Your task to perform on an android device: Open CNN.com Image 0: 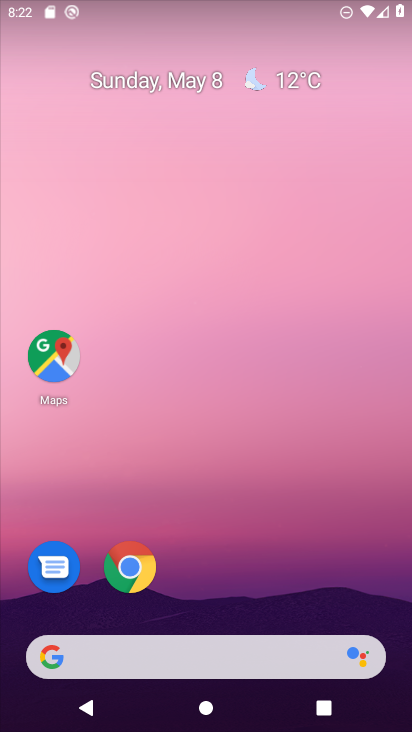
Step 0: drag from (247, 607) to (278, 100)
Your task to perform on an android device: Open CNN.com Image 1: 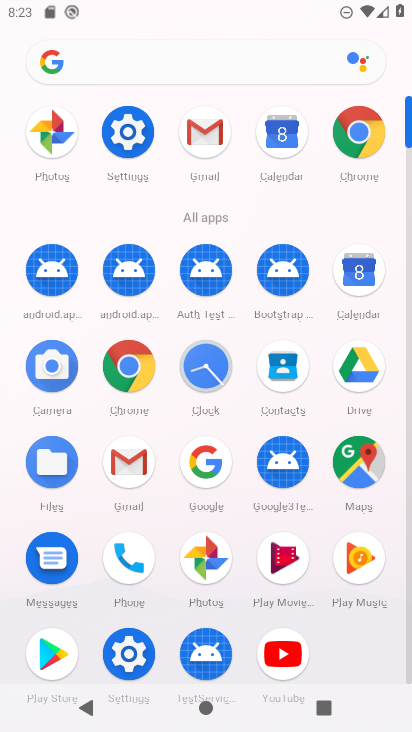
Step 1: click (381, 130)
Your task to perform on an android device: Open CNN.com Image 2: 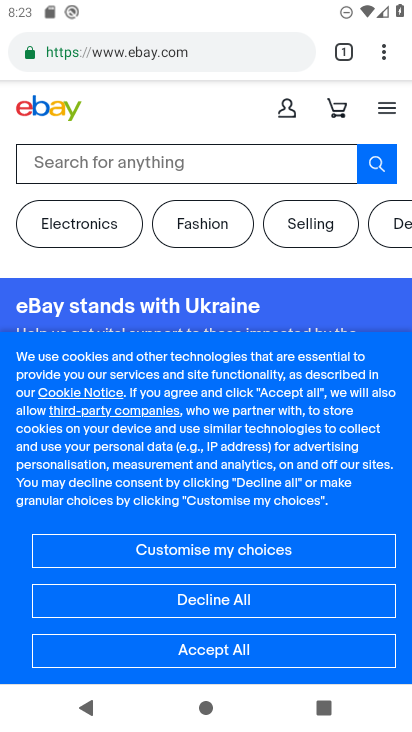
Step 2: click (210, 43)
Your task to perform on an android device: Open CNN.com Image 3: 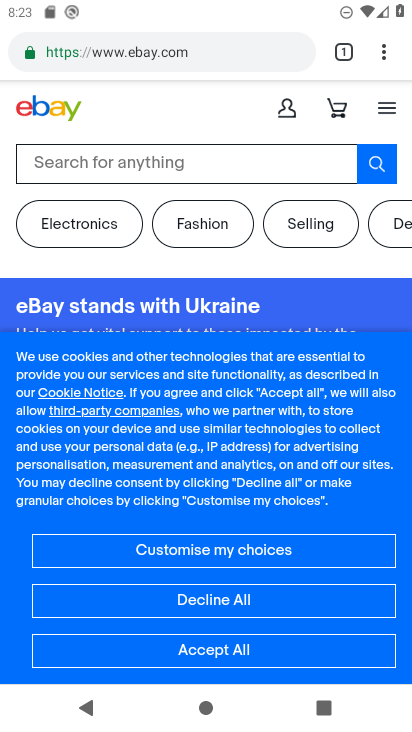
Step 3: click (210, 49)
Your task to perform on an android device: Open CNN.com Image 4: 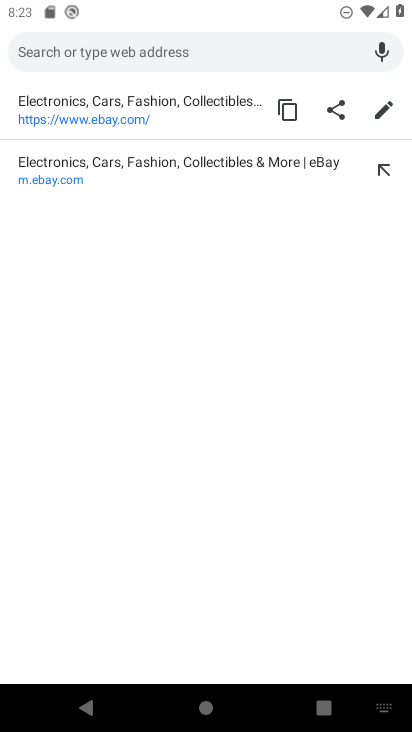
Step 4: type "cnn.com"
Your task to perform on an android device: Open CNN.com Image 5: 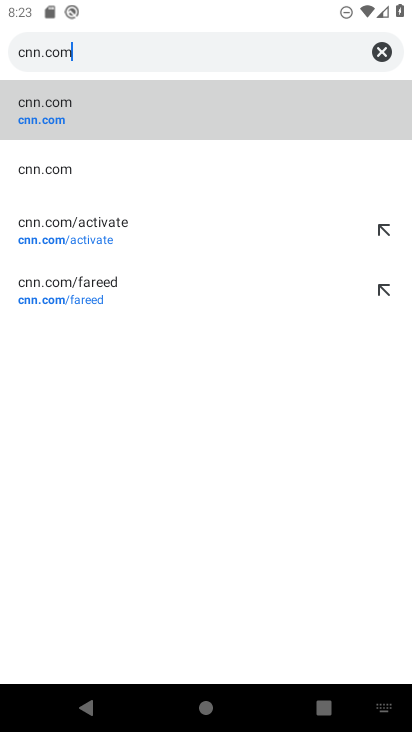
Step 5: click (50, 114)
Your task to perform on an android device: Open CNN.com Image 6: 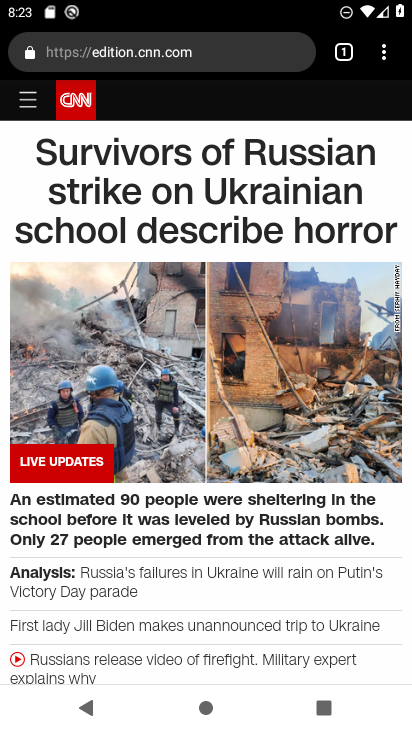
Step 6: task complete